Your task to perform on an android device: delete a single message in the gmail app Image 0: 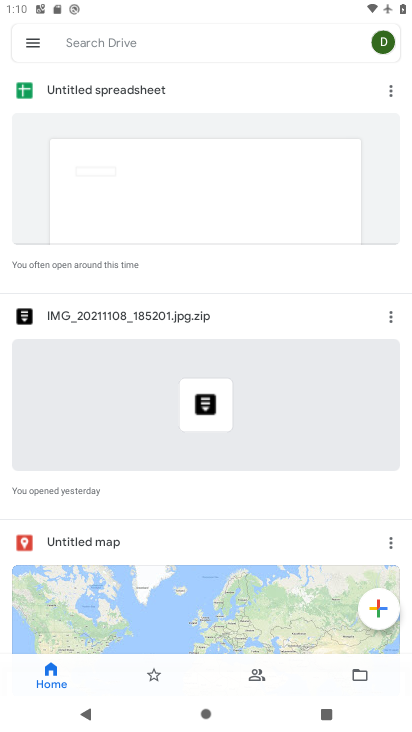
Step 0: press home button
Your task to perform on an android device: delete a single message in the gmail app Image 1: 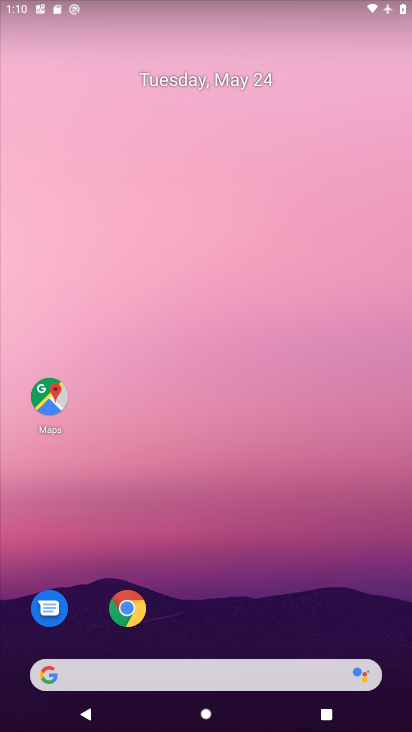
Step 1: drag from (263, 615) to (268, 141)
Your task to perform on an android device: delete a single message in the gmail app Image 2: 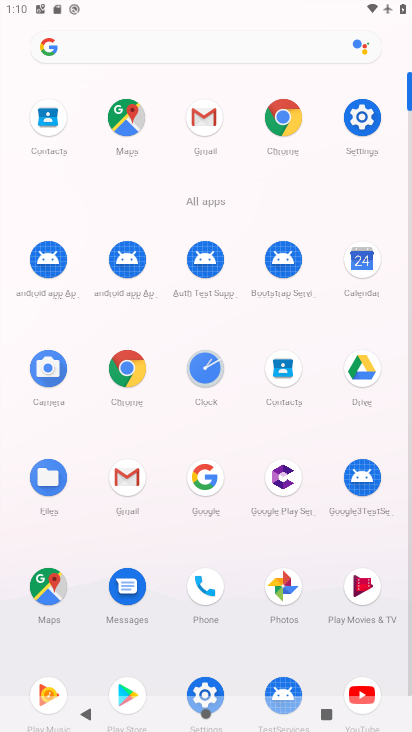
Step 2: click (209, 136)
Your task to perform on an android device: delete a single message in the gmail app Image 3: 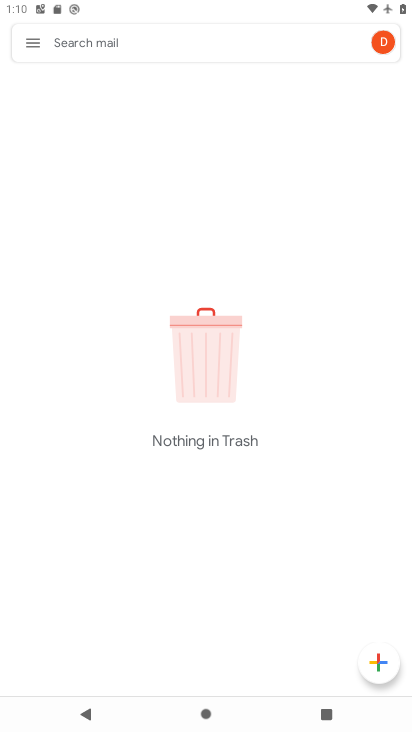
Step 3: click (24, 34)
Your task to perform on an android device: delete a single message in the gmail app Image 4: 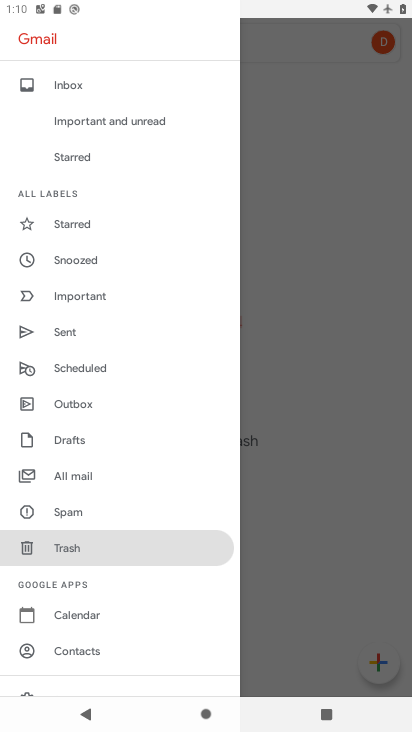
Step 4: click (88, 467)
Your task to perform on an android device: delete a single message in the gmail app Image 5: 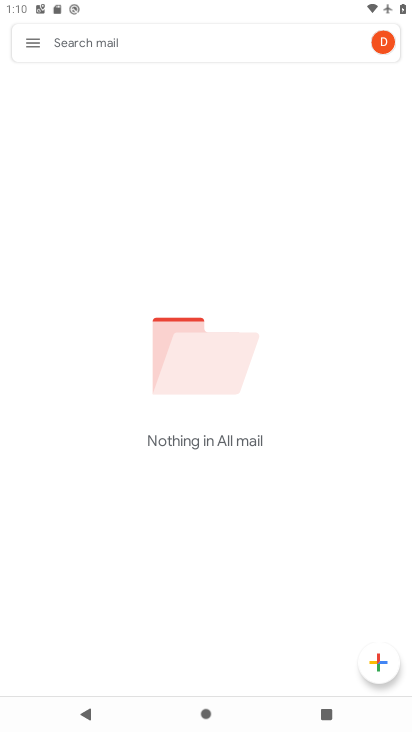
Step 5: task complete